Your task to perform on an android device: change notifications settings Image 0: 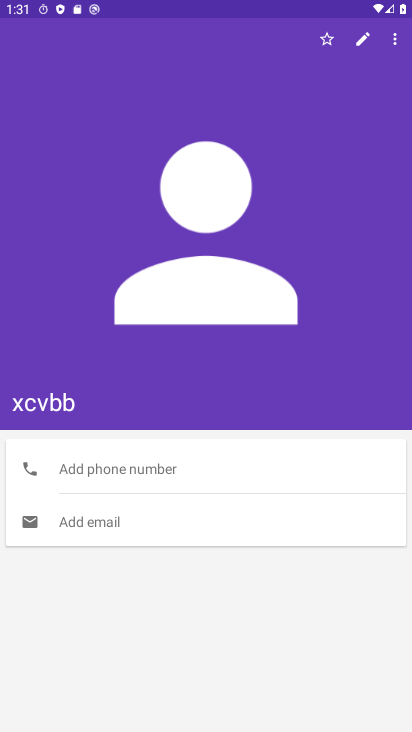
Step 0: press home button
Your task to perform on an android device: change notifications settings Image 1: 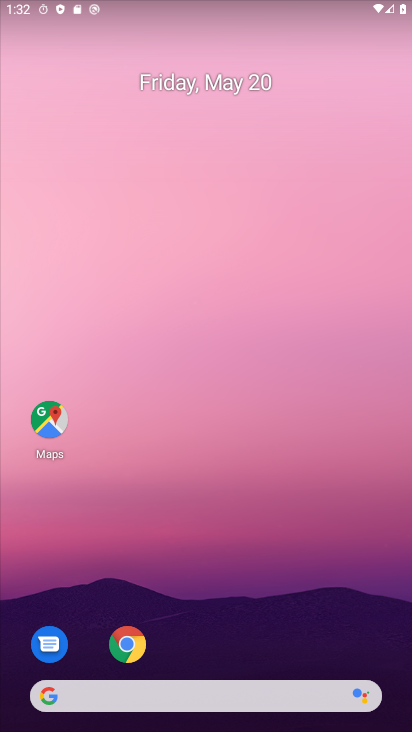
Step 1: drag from (285, 428) to (265, 47)
Your task to perform on an android device: change notifications settings Image 2: 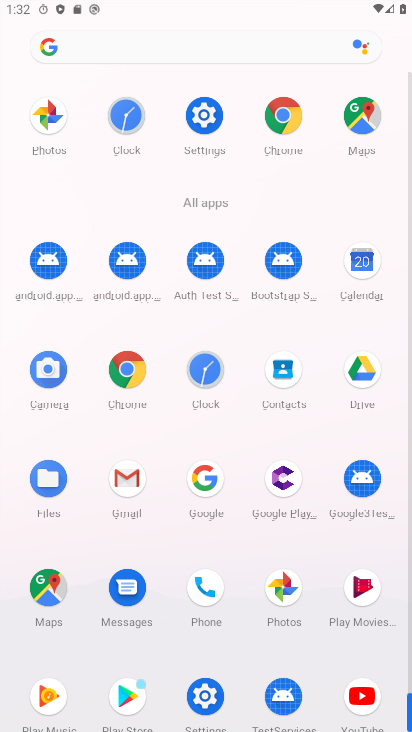
Step 2: click (204, 118)
Your task to perform on an android device: change notifications settings Image 3: 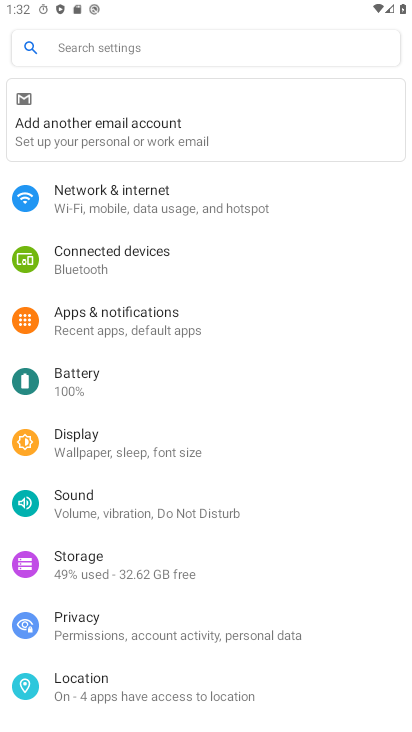
Step 3: click (138, 322)
Your task to perform on an android device: change notifications settings Image 4: 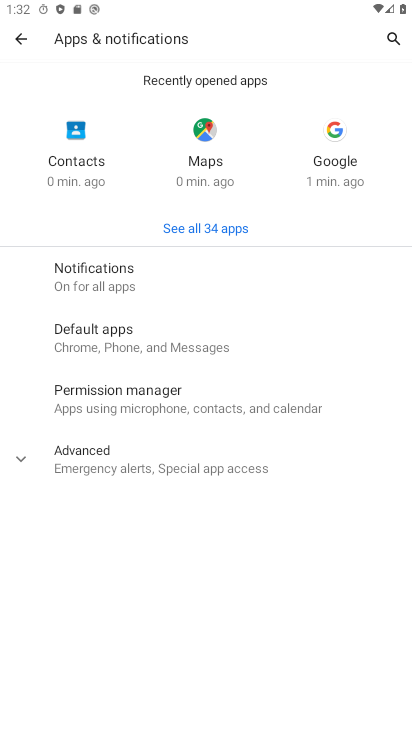
Step 4: click (81, 274)
Your task to perform on an android device: change notifications settings Image 5: 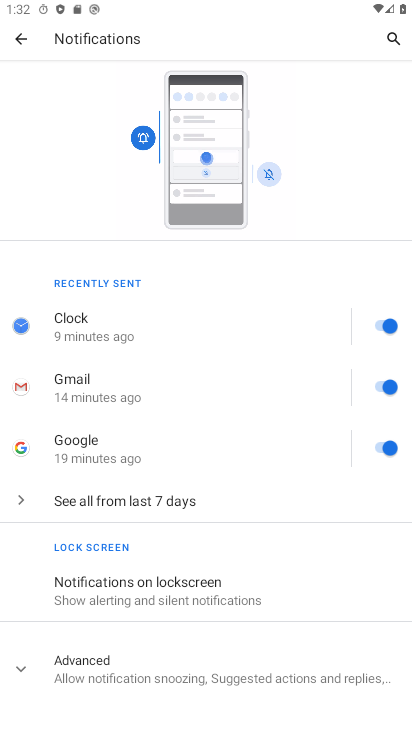
Step 5: click (97, 669)
Your task to perform on an android device: change notifications settings Image 6: 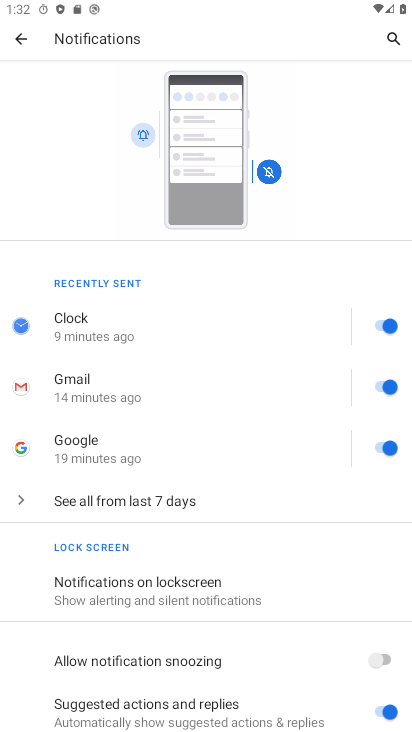
Step 6: click (378, 660)
Your task to perform on an android device: change notifications settings Image 7: 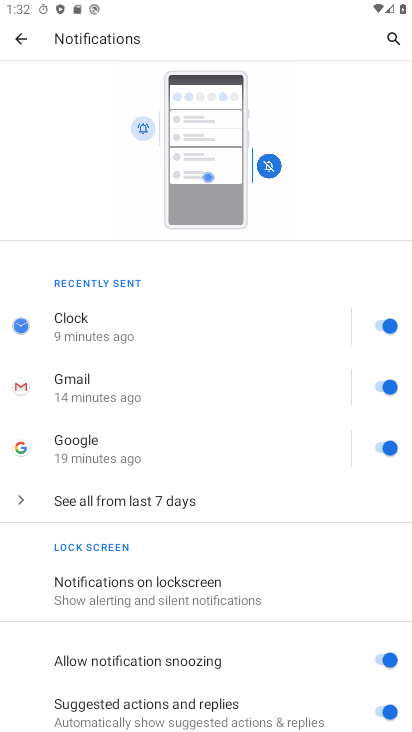
Step 7: task complete